Your task to perform on an android device: check data usage Image 0: 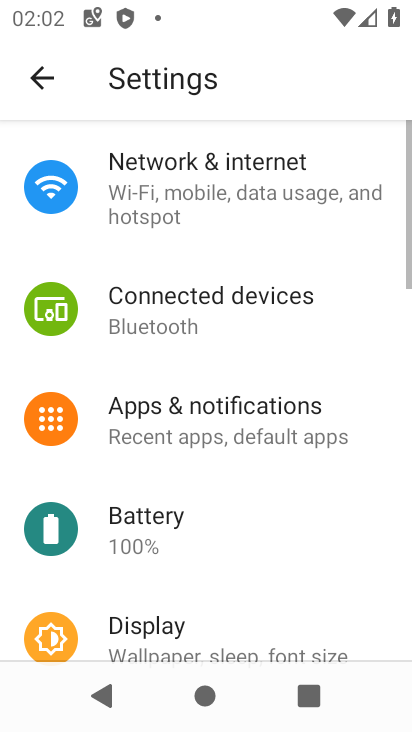
Step 0: press home button
Your task to perform on an android device: check data usage Image 1: 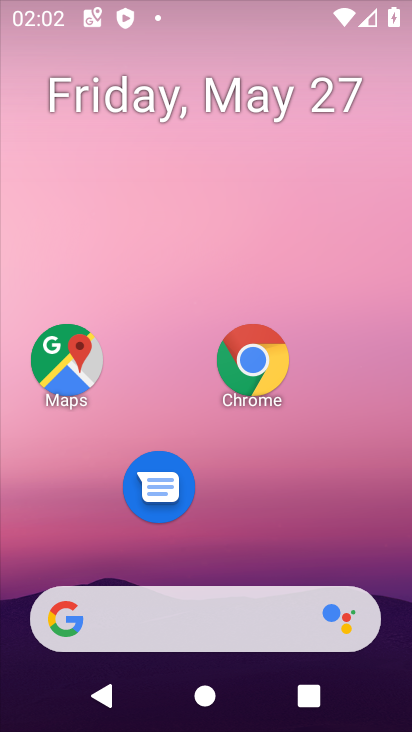
Step 1: drag from (250, 544) to (268, 96)
Your task to perform on an android device: check data usage Image 2: 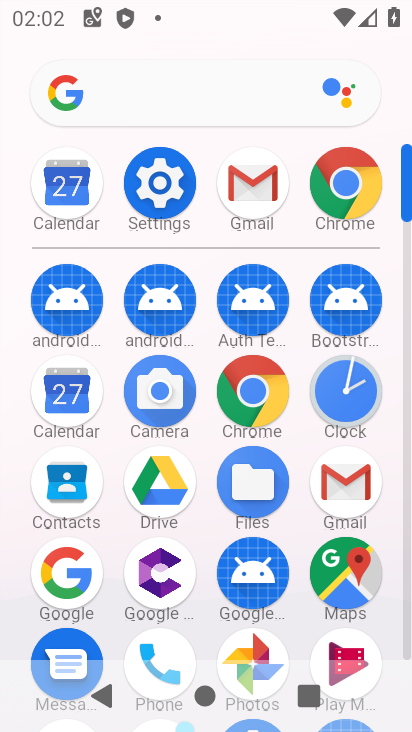
Step 2: click (160, 183)
Your task to perform on an android device: check data usage Image 3: 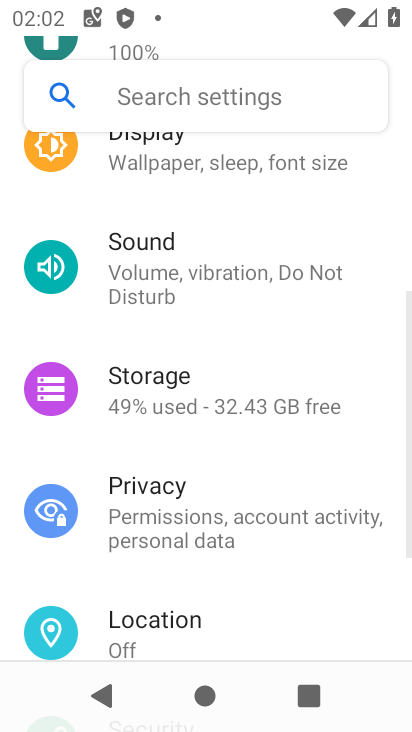
Step 3: drag from (200, 193) to (229, 632)
Your task to perform on an android device: check data usage Image 4: 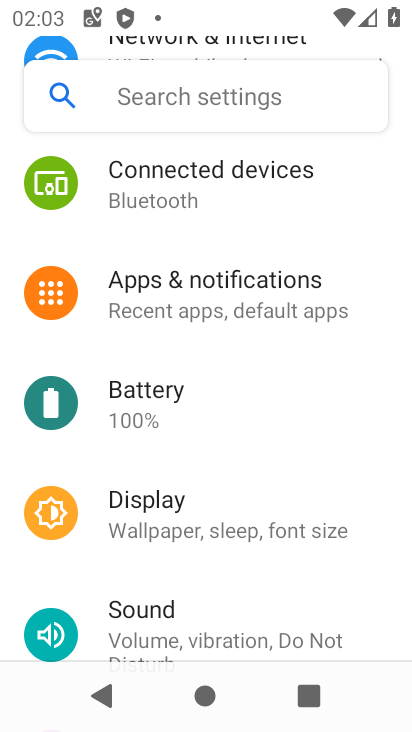
Step 4: drag from (172, 174) to (226, 472)
Your task to perform on an android device: check data usage Image 5: 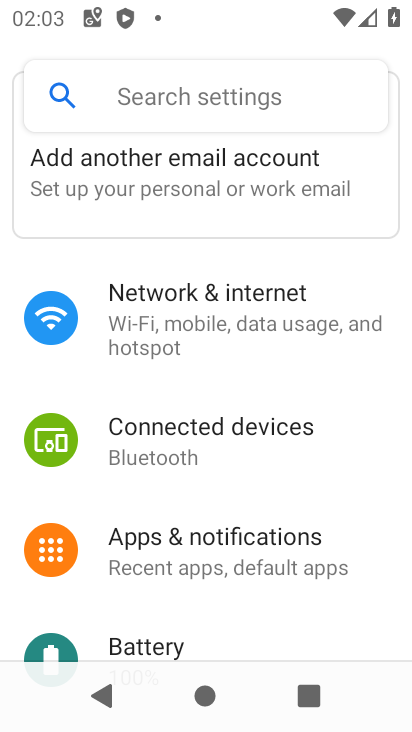
Step 5: click (200, 302)
Your task to perform on an android device: check data usage Image 6: 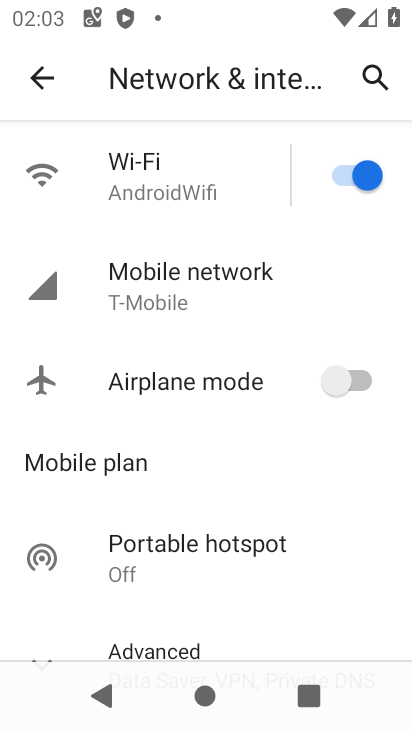
Step 6: click (186, 291)
Your task to perform on an android device: check data usage Image 7: 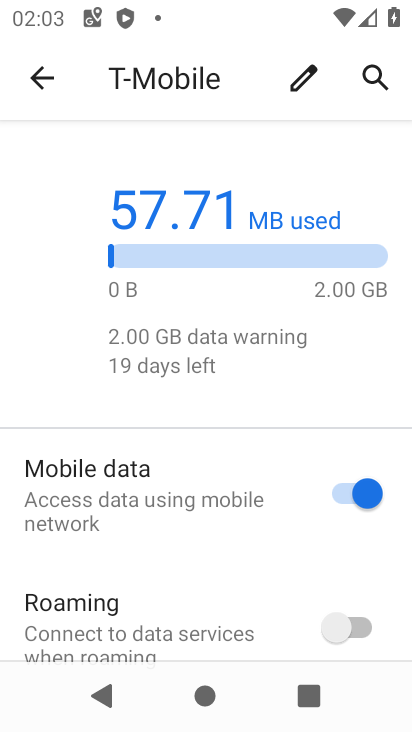
Step 7: task complete